Your task to perform on an android device: Clear the cart on costco. Add amazon basics triple a to the cart on costco Image 0: 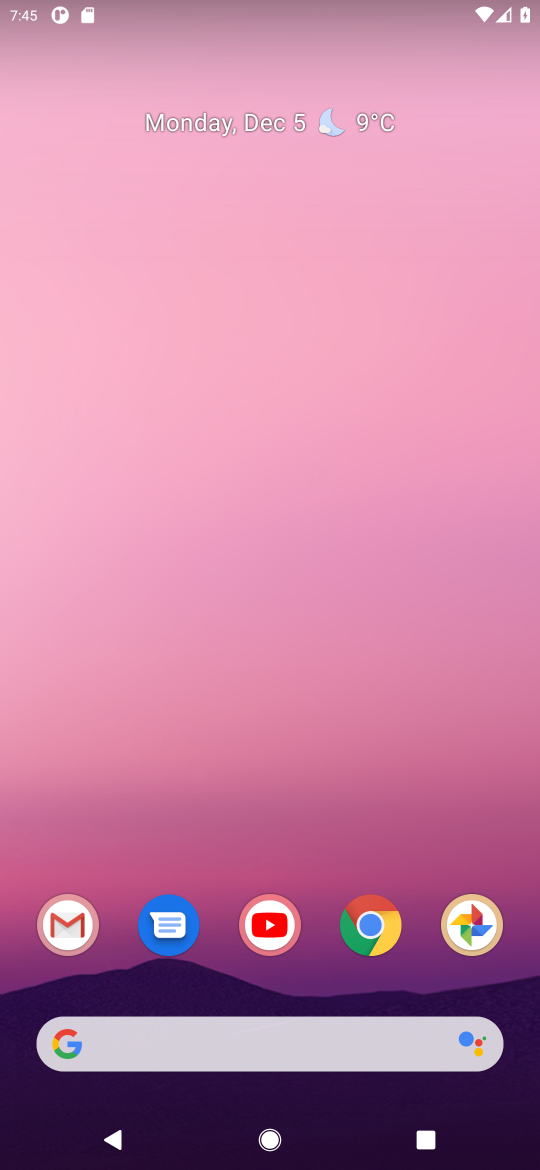
Step 0: click (379, 917)
Your task to perform on an android device: Clear the cart on costco. Add amazon basics triple a to the cart on costco Image 1: 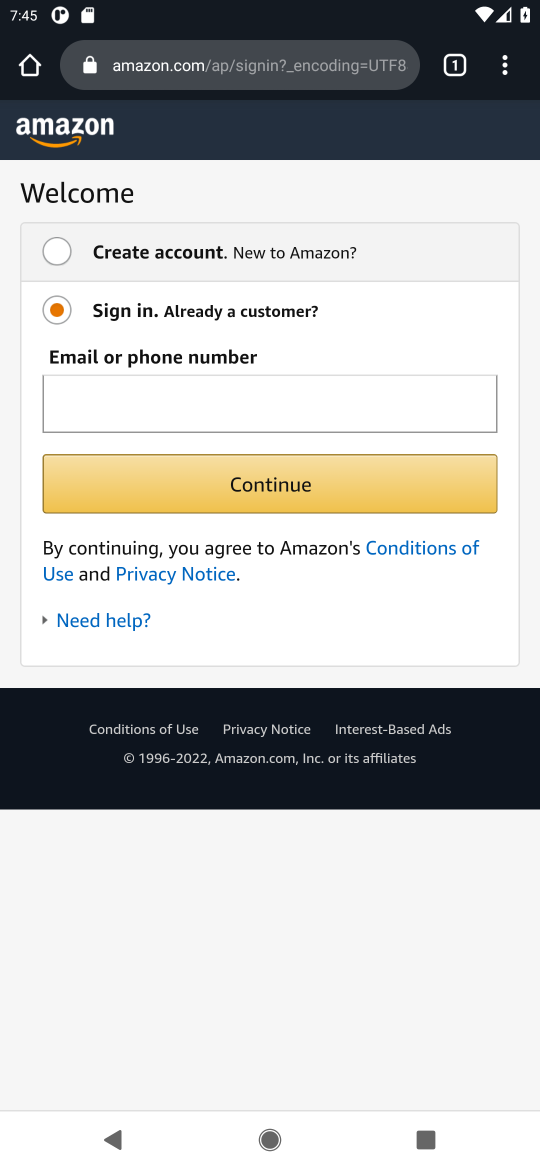
Step 1: click (240, 75)
Your task to perform on an android device: Clear the cart on costco. Add amazon basics triple a to the cart on costco Image 2: 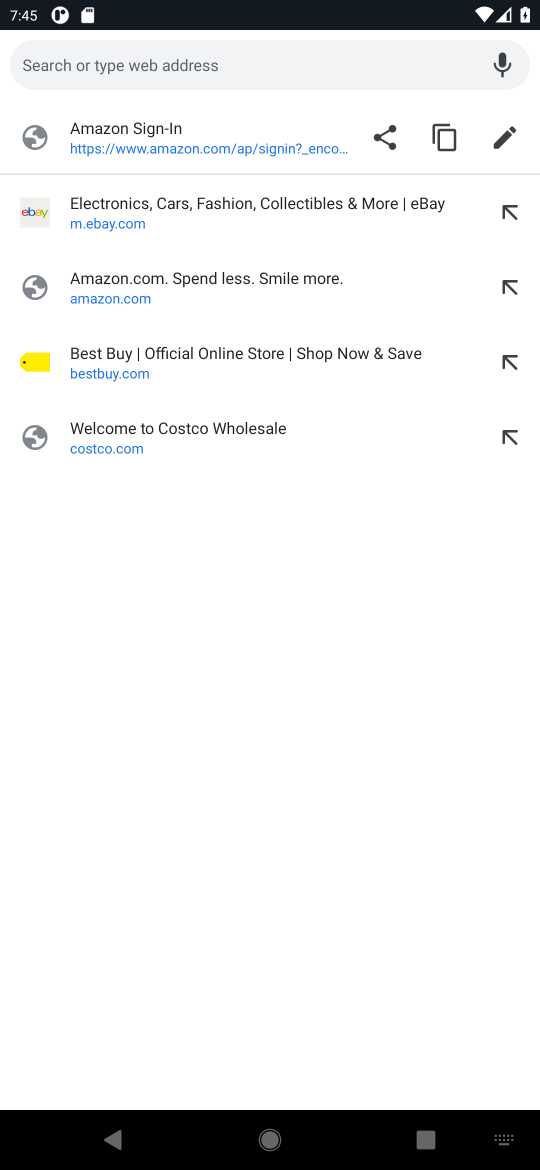
Step 2: click (93, 437)
Your task to perform on an android device: Clear the cart on costco. Add amazon basics triple a to the cart on costco Image 3: 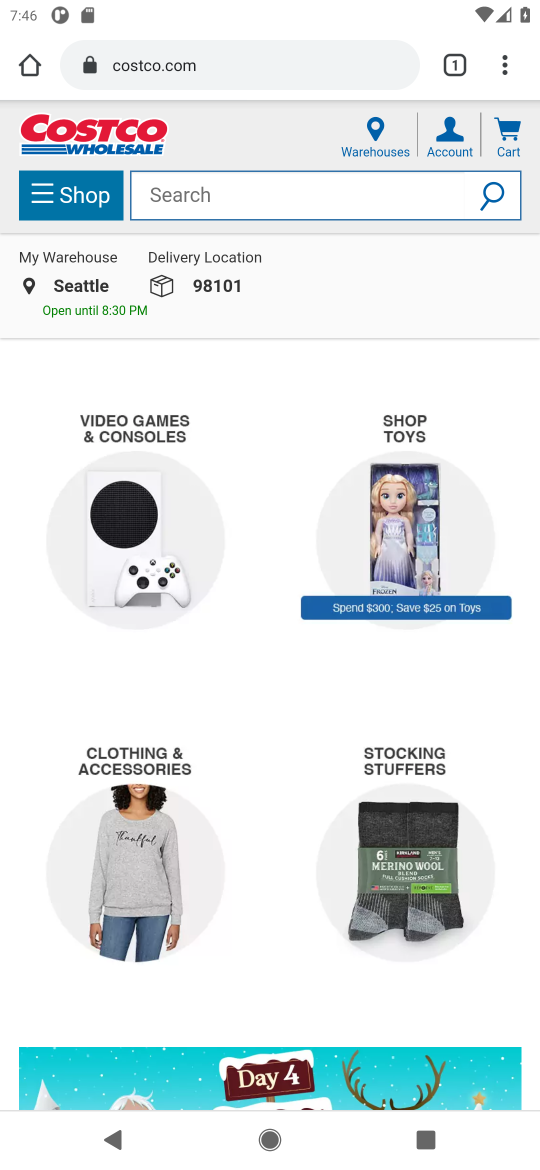
Step 3: click (507, 140)
Your task to perform on an android device: Clear the cart on costco. Add amazon basics triple a to the cart on costco Image 4: 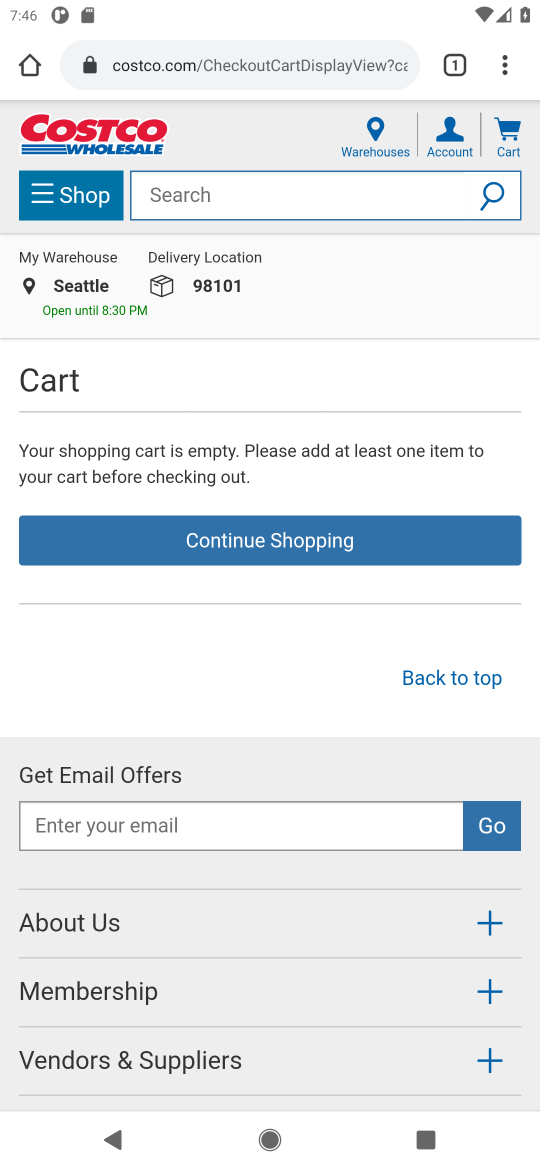
Step 4: click (205, 196)
Your task to perform on an android device: Clear the cart on costco. Add amazon basics triple a to the cart on costco Image 5: 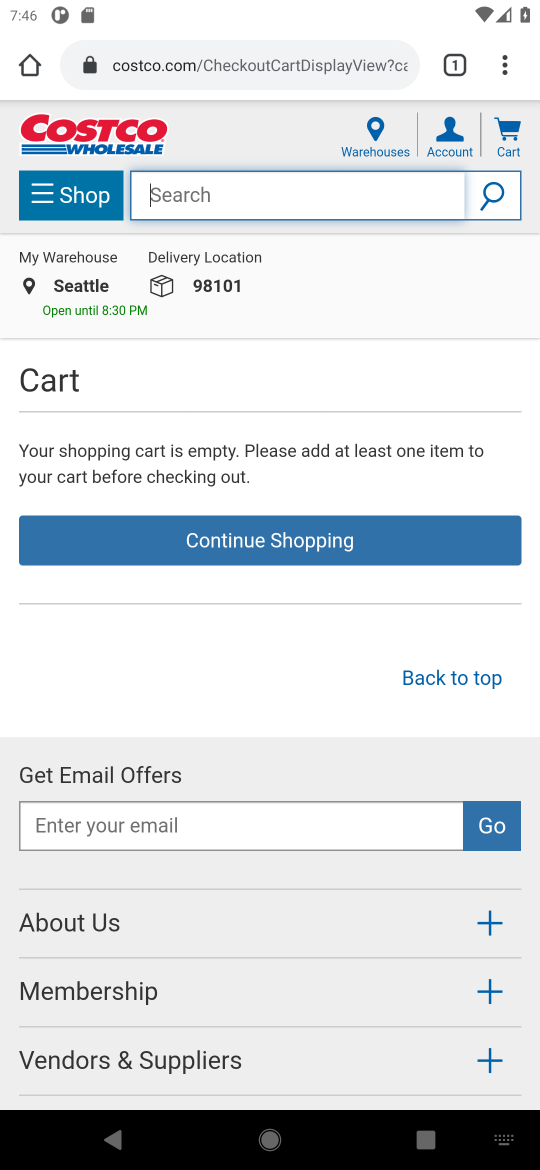
Step 5: type "amazon basics triple a"
Your task to perform on an android device: Clear the cart on costco. Add amazon basics triple a to the cart on costco Image 6: 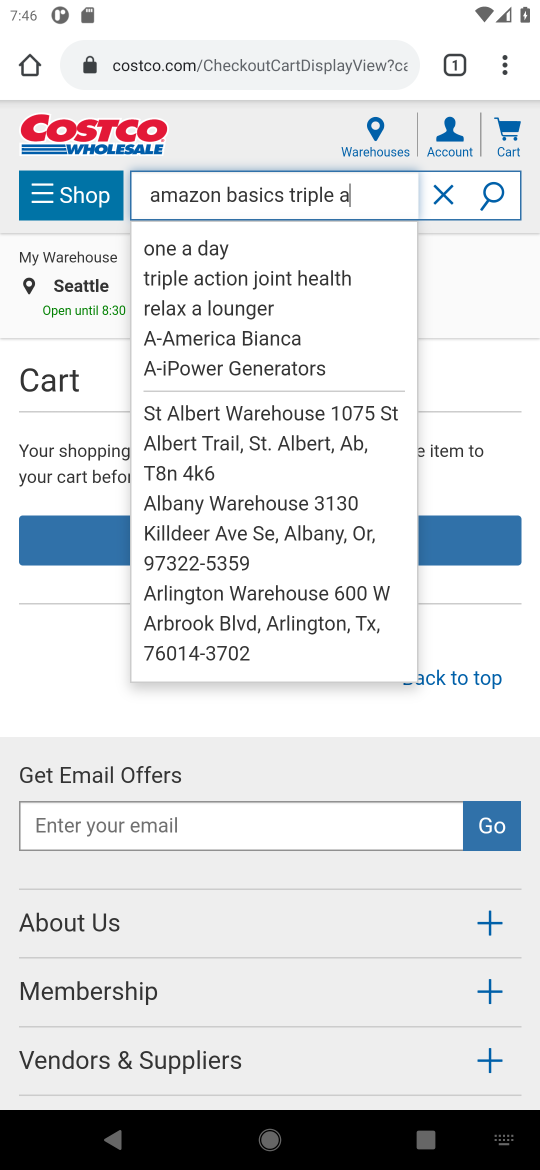
Step 6: click (493, 193)
Your task to perform on an android device: Clear the cart on costco. Add amazon basics triple a to the cart on costco Image 7: 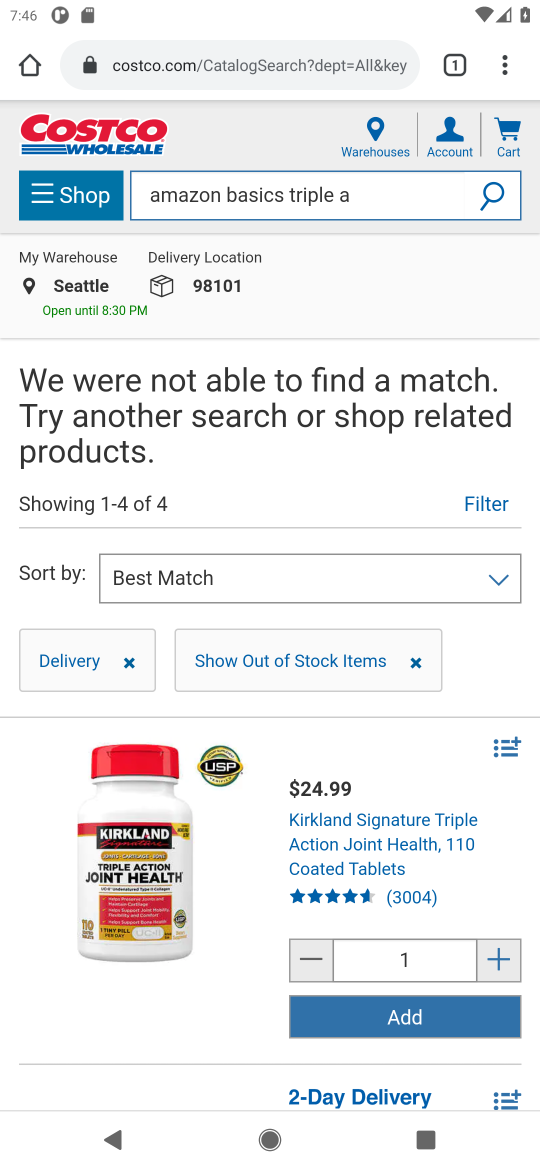
Step 7: task complete